Your task to perform on an android device: When is my next meeting? Image 0: 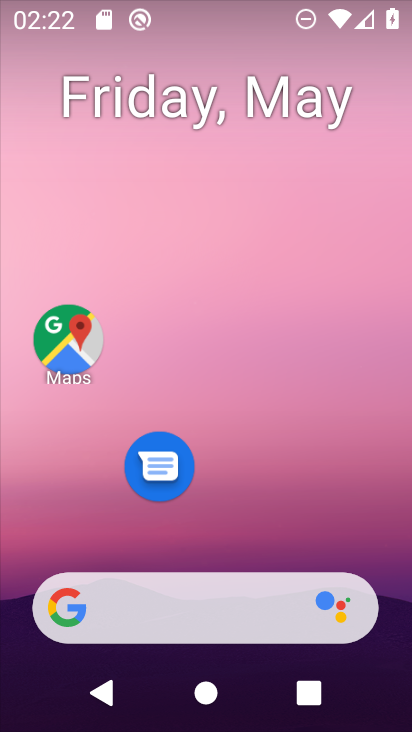
Step 0: drag from (315, 524) to (260, 18)
Your task to perform on an android device: When is my next meeting? Image 1: 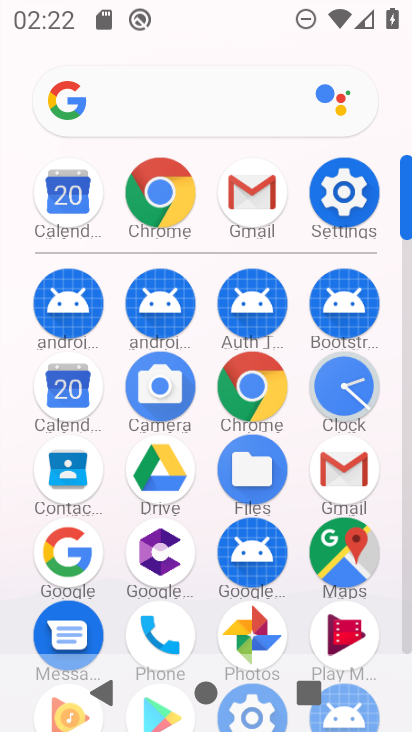
Step 1: task complete